Your task to perform on an android device: Go to notification settings Image 0: 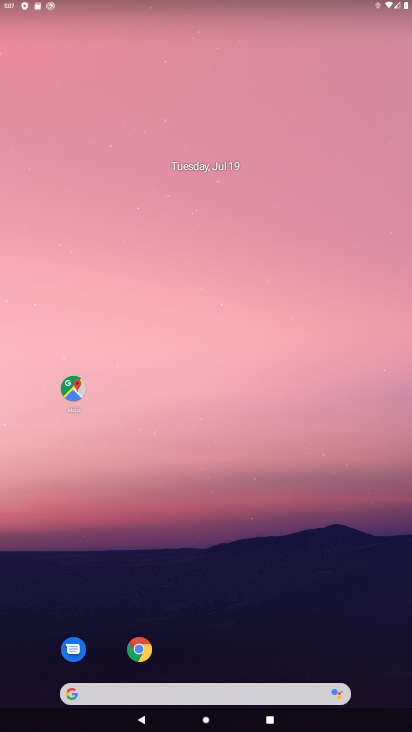
Step 0: drag from (329, 592) to (169, 106)
Your task to perform on an android device: Go to notification settings Image 1: 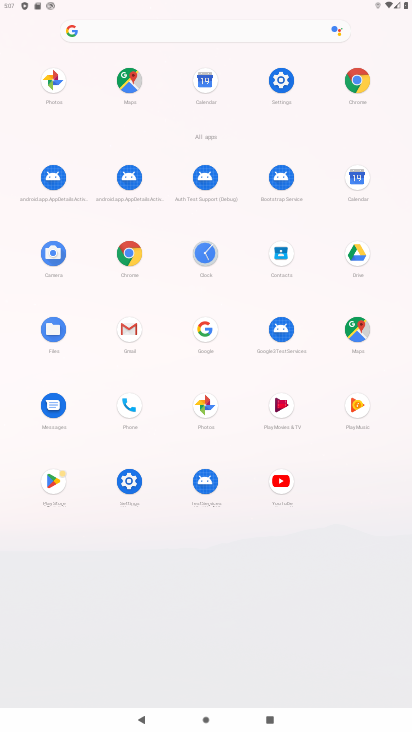
Step 1: click (273, 80)
Your task to perform on an android device: Go to notification settings Image 2: 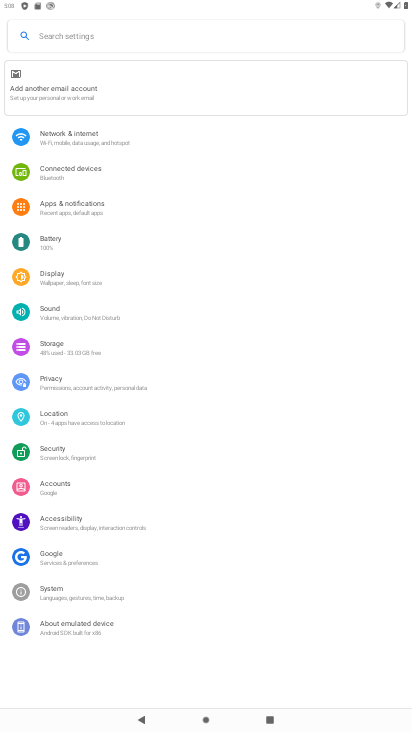
Step 2: click (64, 206)
Your task to perform on an android device: Go to notification settings Image 3: 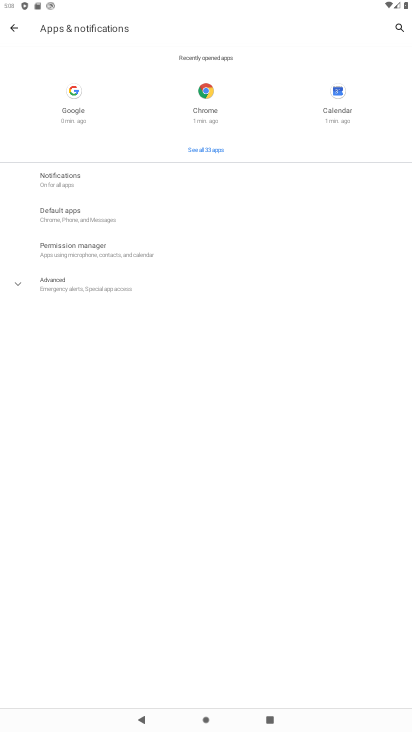
Step 3: click (86, 173)
Your task to perform on an android device: Go to notification settings Image 4: 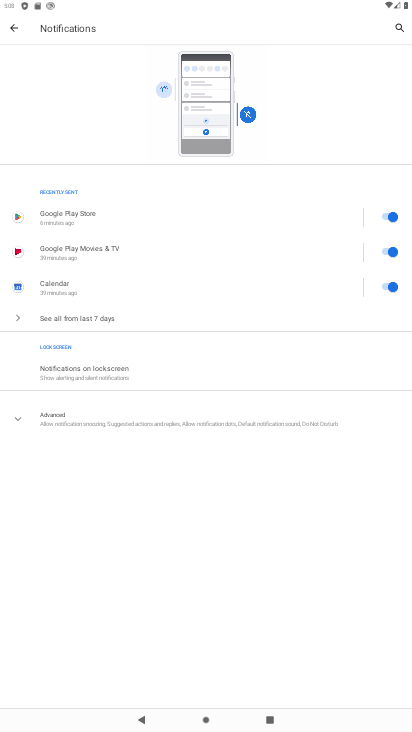
Step 4: task complete